Your task to perform on an android device: turn off wifi Image 0: 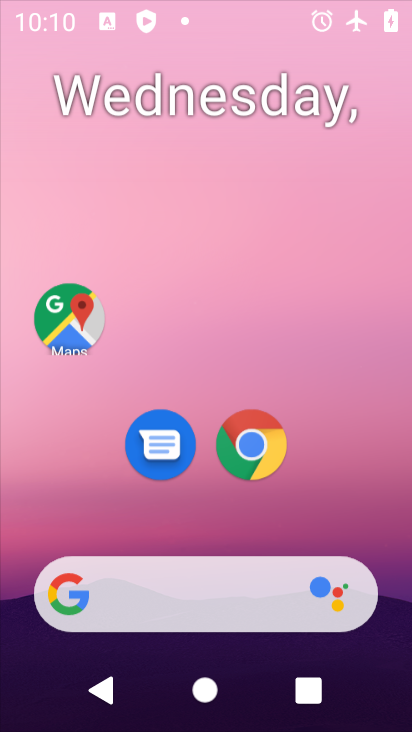
Step 0: click (256, 31)
Your task to perform on an android device: turn off wifi Image 1: 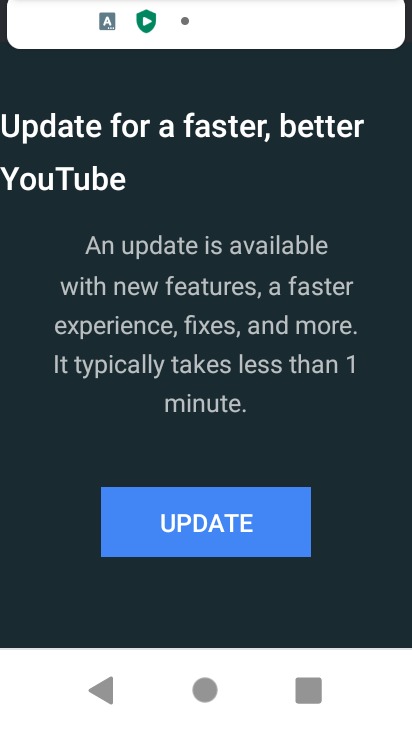
Step 1: press home button
Your task to perform on an android device: turn off wifi Image 2: 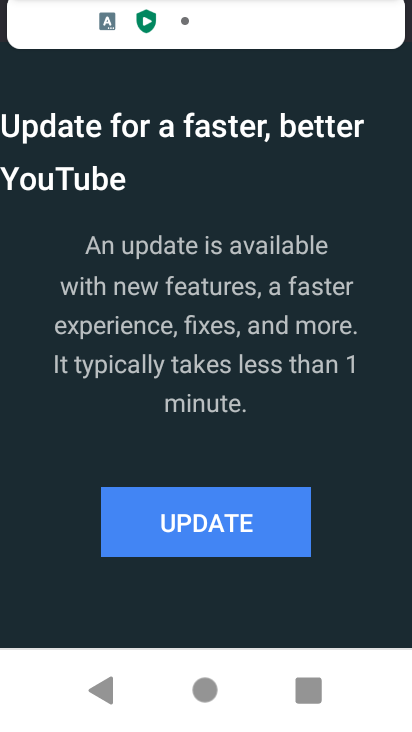
Step 2: drag from (256, 31) to (406, 325)
Your task to perform on an android device: turn off wifi Image 3: 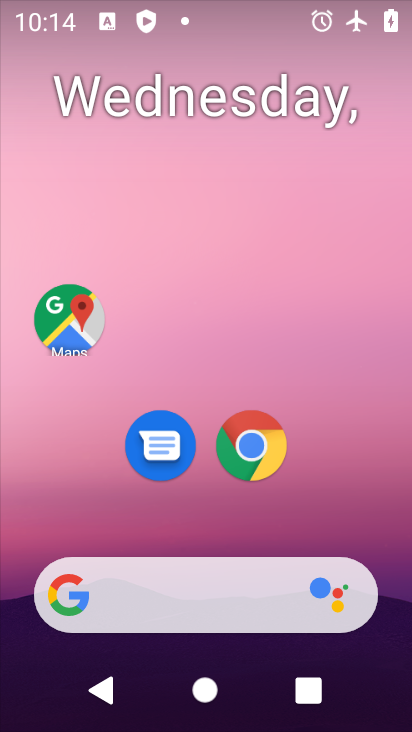
Step 3: drag from (383, 566) to (345, 0)
Your task to perform on an android device: turn off wifi Image 4: 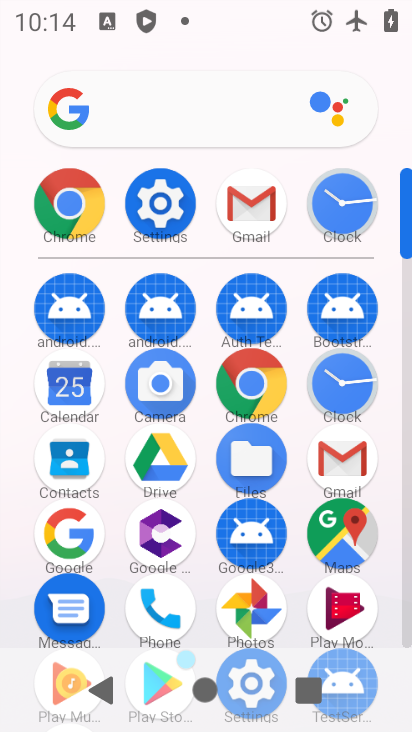
Step 4: click (160, 196)
Your task to perform on an android device: turn off wifi Image 5: 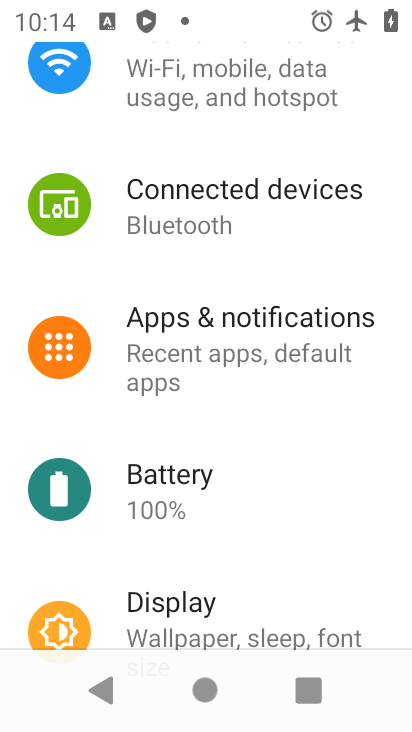
Step 5: drag from (189, 164) to (289, 662)
Your task to perform on an android device: turn off wifi Image 6: 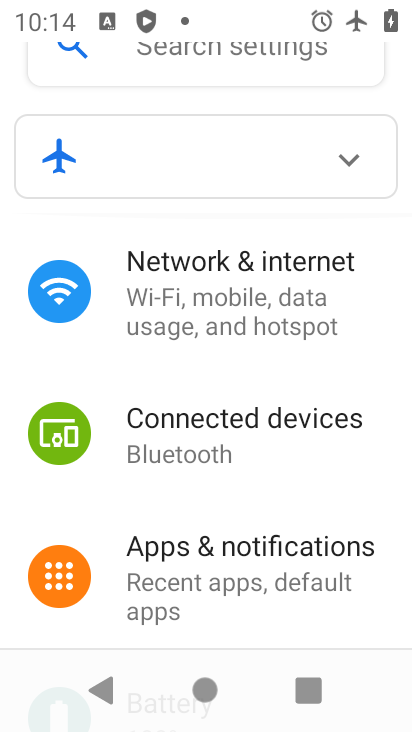
Step 6: drag from (203, 181) to (244, 457)
Your task to perform on an android device: turn off wifi Image 7: 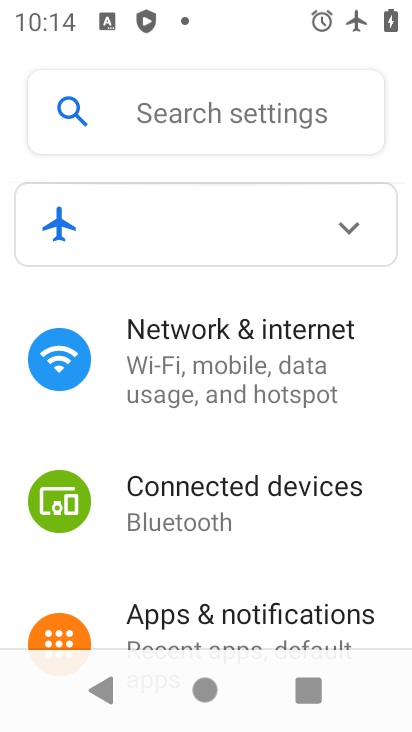
Step 7: click (187, 306)
Your task to perform on an android device: turn off wifi Image 8: 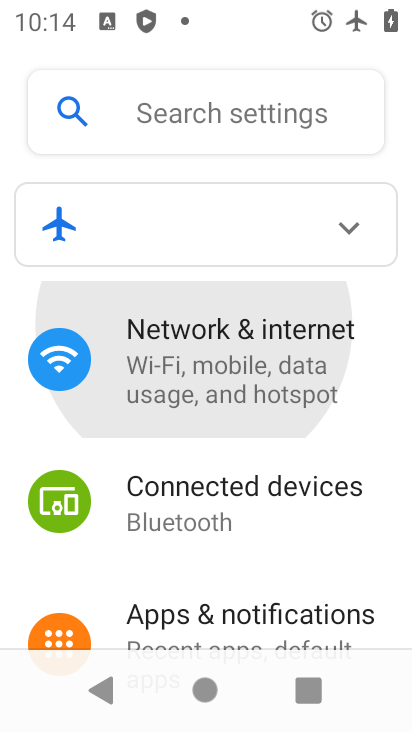
Step 8: click (180, 320)
Your task to perform on an android device: turn off wifi Image 9: 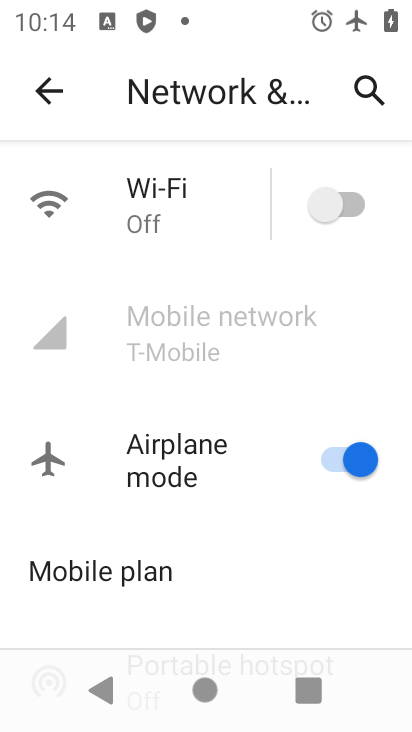
Step 9: task complete